Your task to perform on an android device: add a contact Image 0: 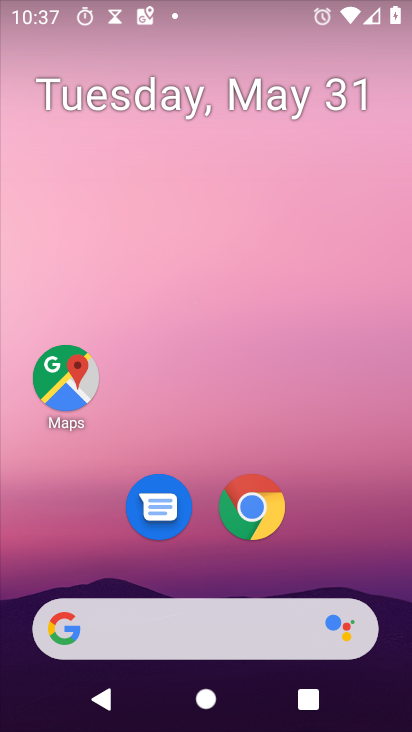
Step 0: drag from (26, 541) to (199, 211)
Your task to perform on an android device: add a contact Image 1: 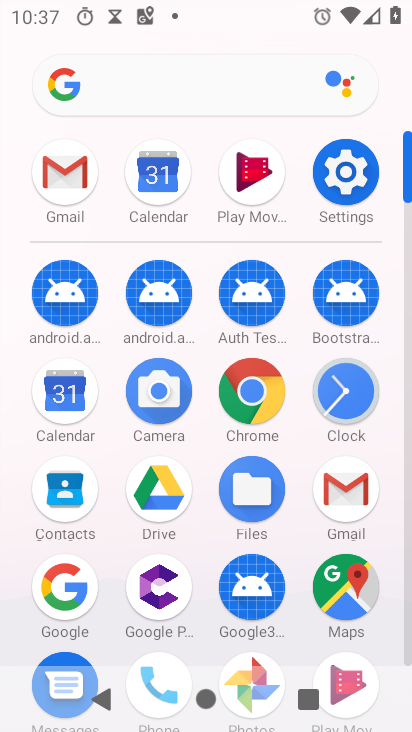
Step 1: click (157, 652)
Your task to perform on an android device: add a contact Image 2: 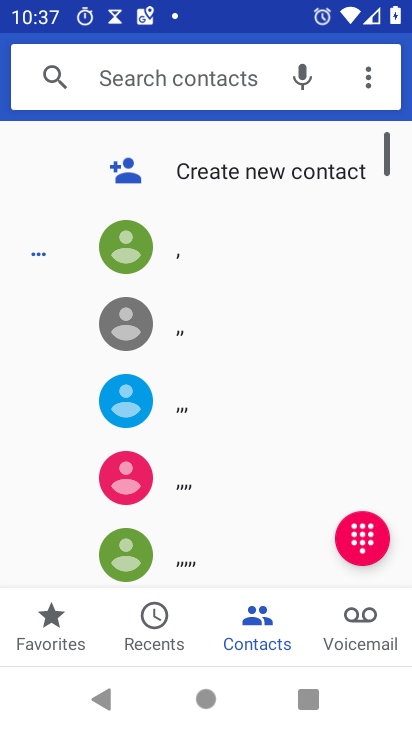
Step 2: click (205, 154)
Your task to perform on an android device: add a contact Image 3: 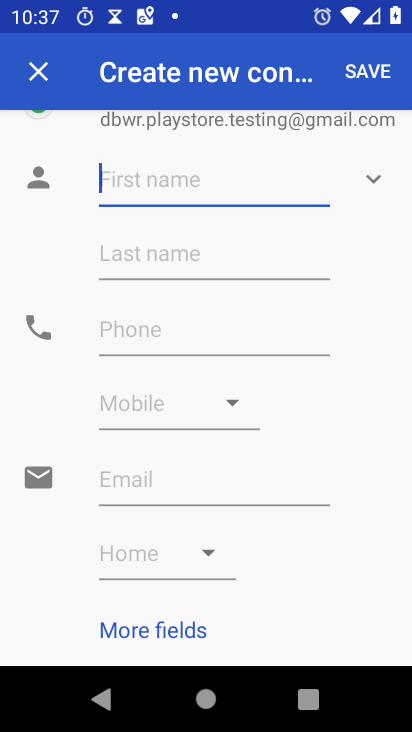
Step 3: click (217, 189)
Your task to perform on an android device: add a contact Image 4: 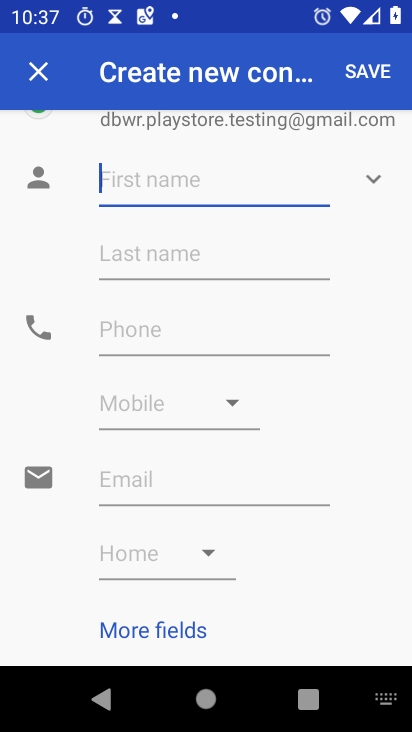
Step 4: type "sawdsd"
Your task to perform on an android device: add a contact Image 5: 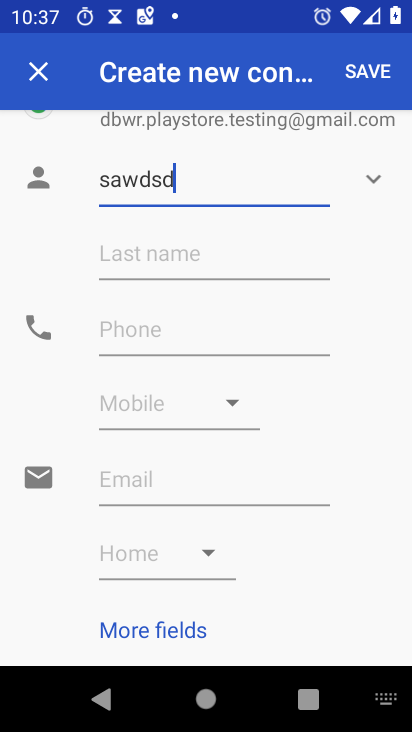
Step 5: type ""
Your task to perform on an android device: add a contact Image 6: 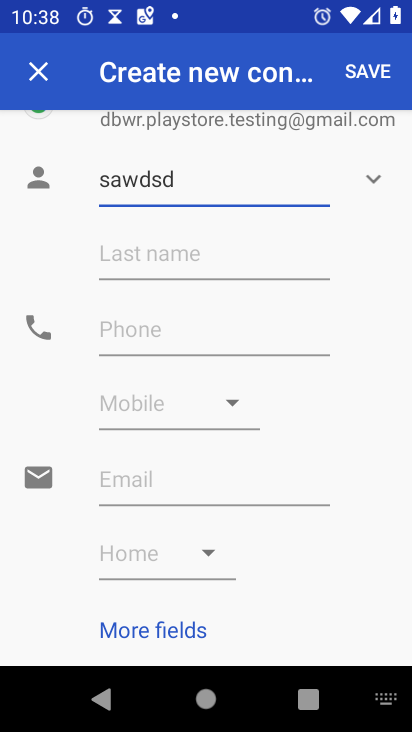
Step 6: click (382, 59)
Your task to perform on an android device: add a contact Image 7: 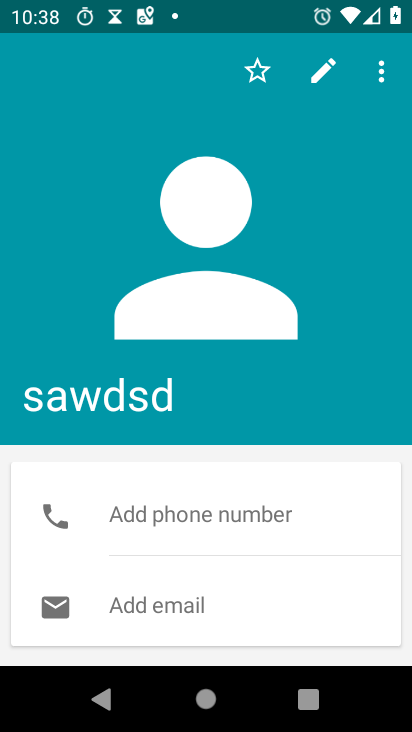
Step 7: task complete